Your task to perform on an android device: Go to eBay Image 0: 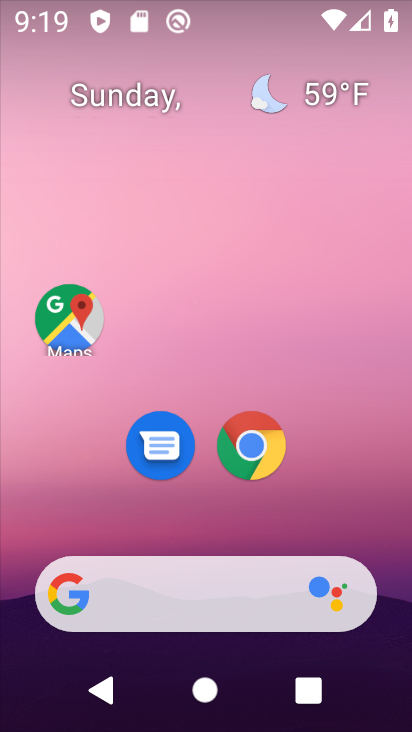
Step 0: click (276, 463)
Your task to perform on an android device: Go to eBay Image 1: 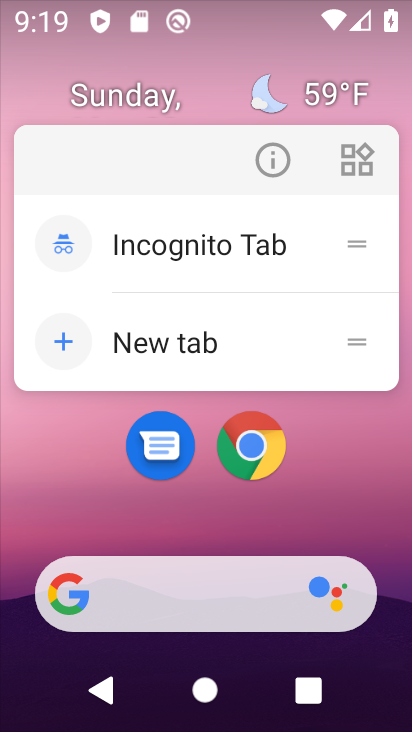
Step 1: click (261, 461)
Your task to perform on an android device: Go to eBay Image 2: 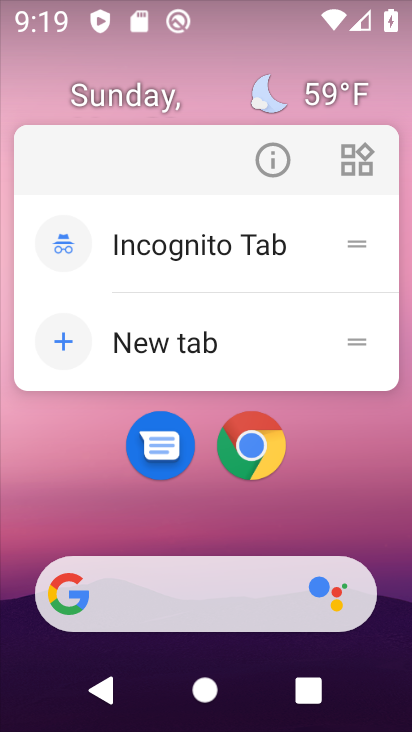
Step 2: click (271, 448)
Your task to perform on an android device: Go to eBay Image 3: 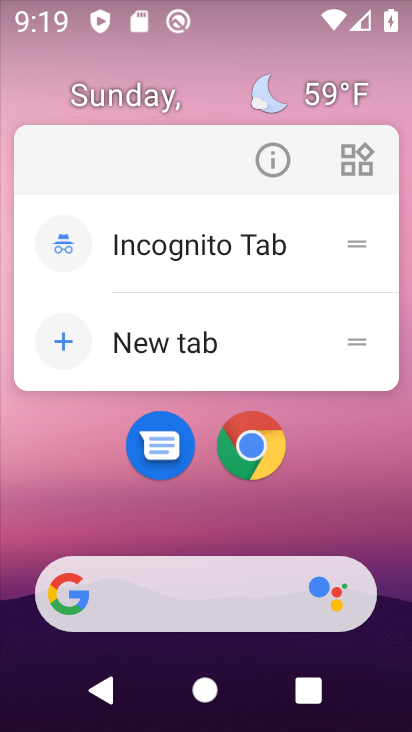
Step 3: click (263, 448)
Your task to perform on an android device: Go to eBay Image 4: 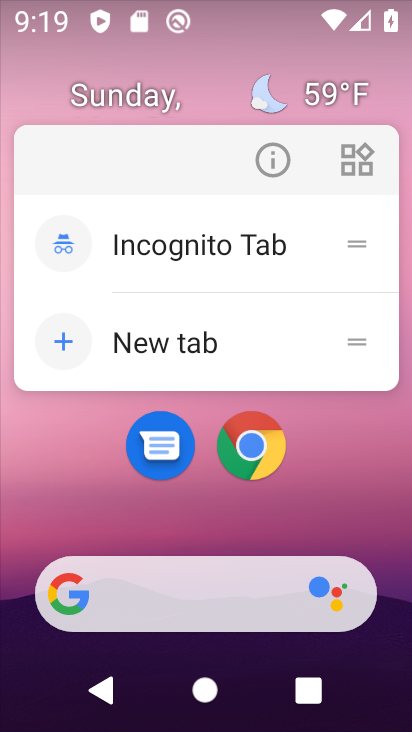
Step 4: click (262, 449)
Your task to perform on an android device: Go to eBay Image 5: 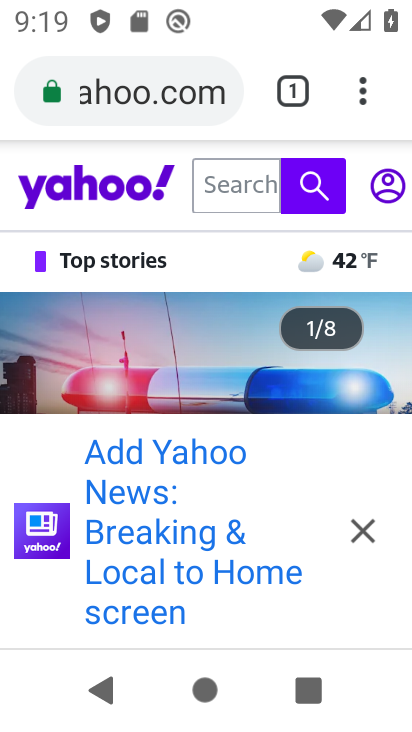
Step 5: drag from (373, 92) to (335, 204)
Your task to perform on an android device: Go to eBay Image 6: 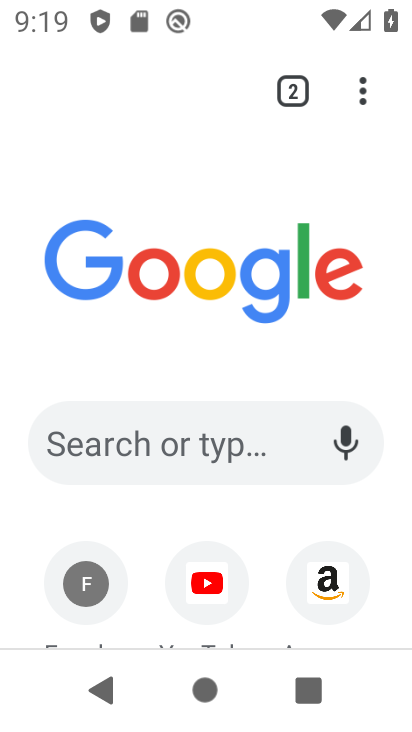
Step 6: drag from (229, 616) to (388, 249)
Your task to perform on an android device: Go to eBay Image 7: 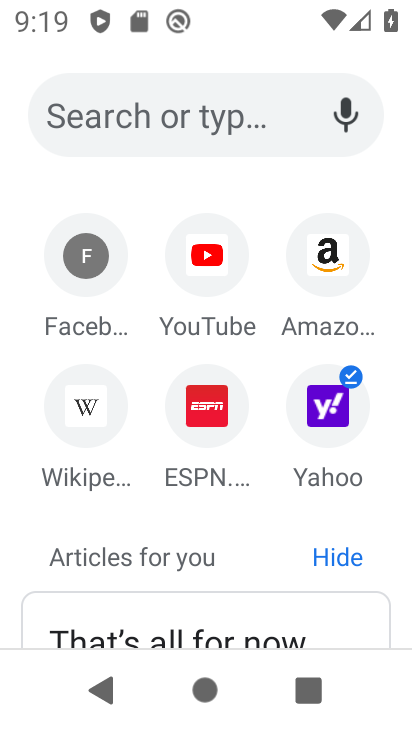
Step 7: click (171, 138)
Your task to perform on an android device: Go to eBay Image 8: 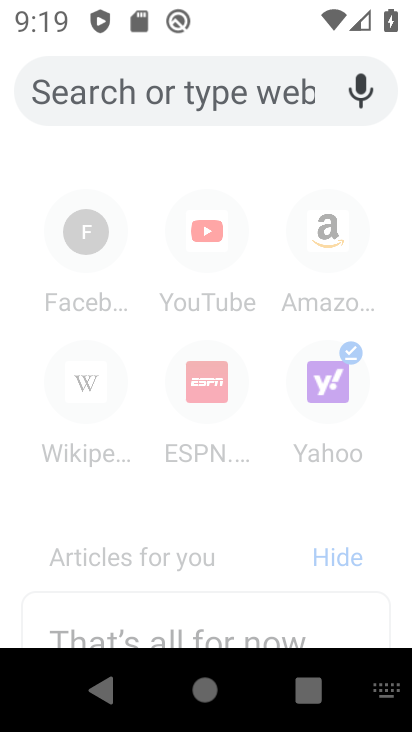
Step 8: type "eBay.com"
Your task to perform on an android device: Go to eBay Image 9: 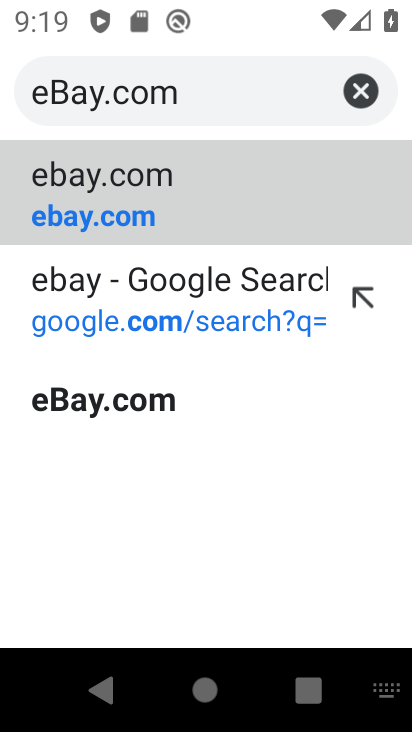
Step 9: click (257, 209)
Your task to perform on an android device: Go to eBay Image 10: 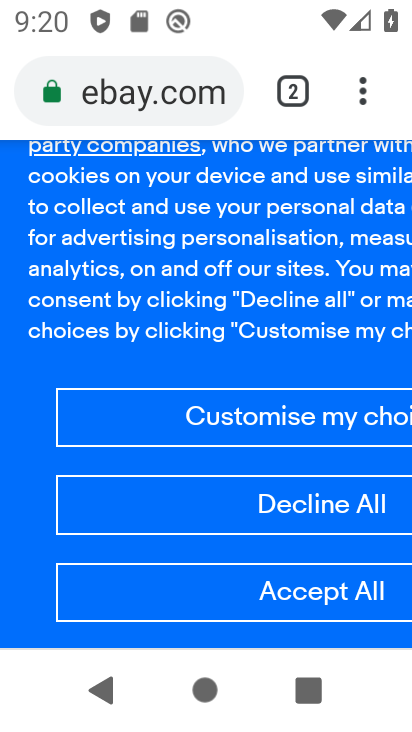
Step 10: click (330, 598)
Your task to perform on an android device: Go to eBay Image 11: 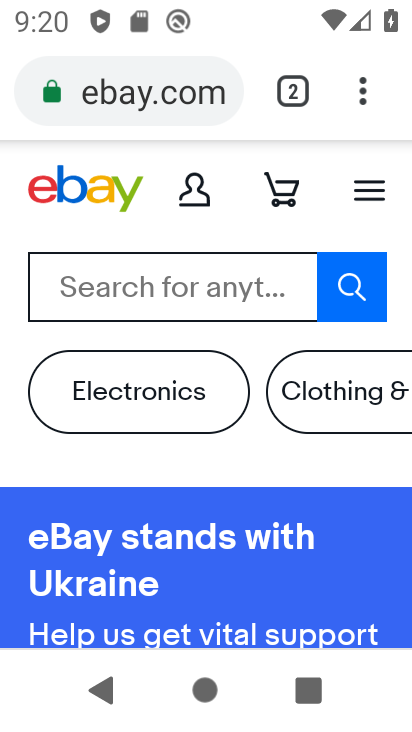
Step 11: task complete